Your task to perform on an android device: Do I have any events tomorrow? Image 0: 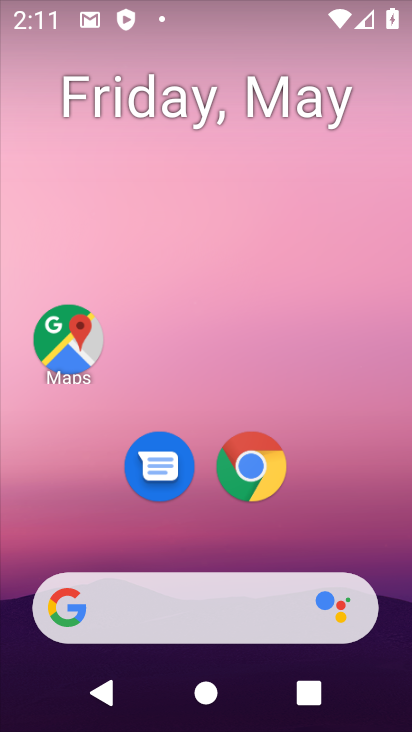
Step 0: drag from (389, 575) to (388, 31)
Your task to perform on an android device: Do I have any events tomorrow? Image 1: 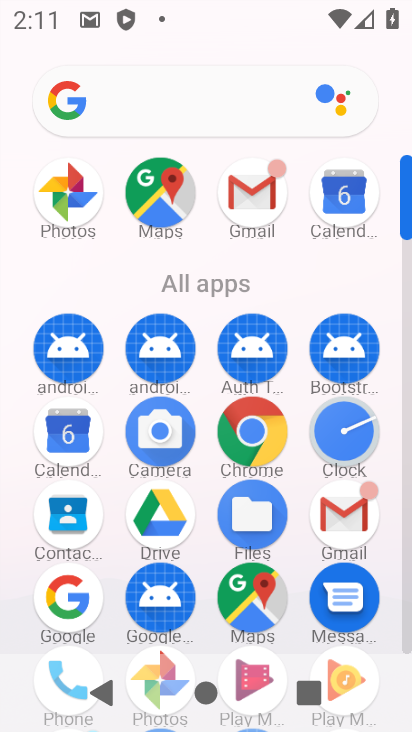
Step 1: click (69, 420)
Your task to perform on an android device: Do I have any events tomorrow? Image 2: 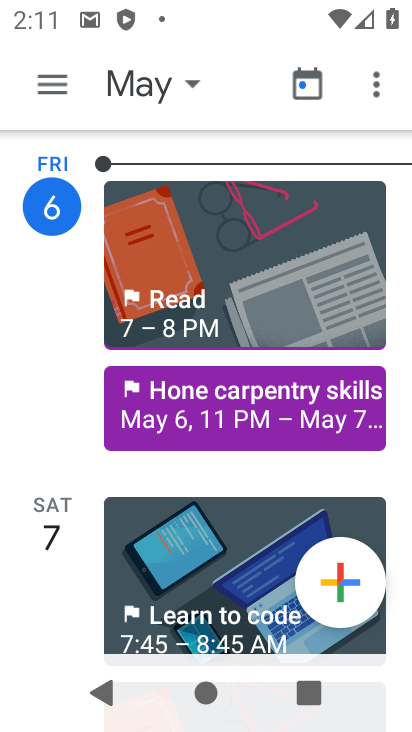
Step 2: drag from (203, 455) to (284, 86)
Your task to perform on an android device: Do I have any events tomorrow? Image 3: 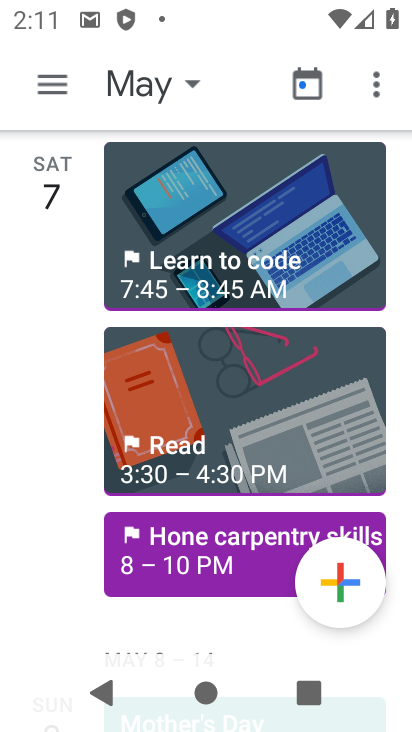
Step 3: click (43, 202)
Your task to perform on an android device: Do I have any events tomorrow? Image 4: 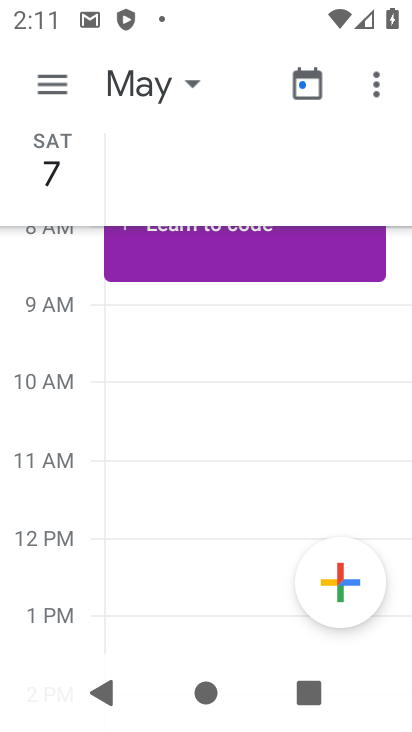
Step 4: task complete